Your task to perform on an android device: change notifications settings Image 0: 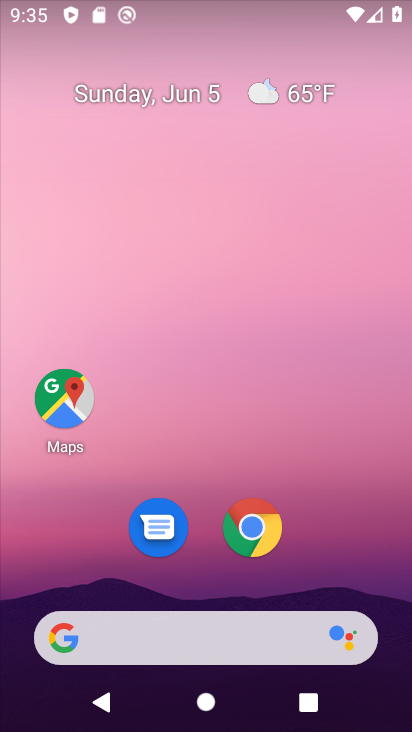
Step 0: drag from (234, 573) to (336, 4)
Your task to perform on an android device: change notifications settings Image 1: 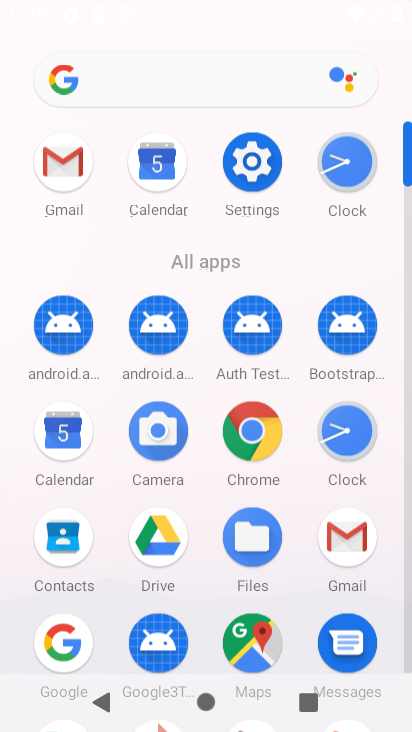
Step 1: click (253, 173)
Your task to perform on an android device: change notifications settings Image 2: 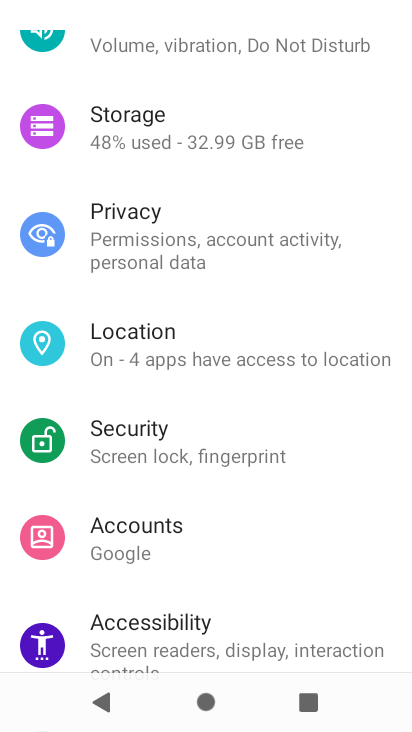
Step 2: drag from (257, 195) to (161, 686)
Your task to perform on an android device: change notifications settings Image 3: 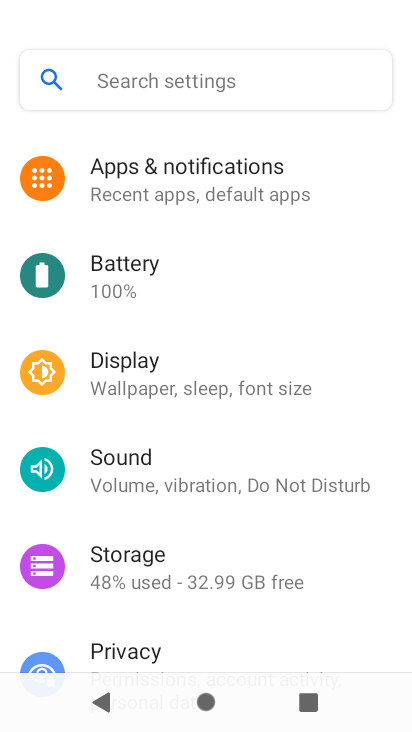
Step 3: click (149, 182)
Your task to perform on an android device: change notifications settings Image 4: 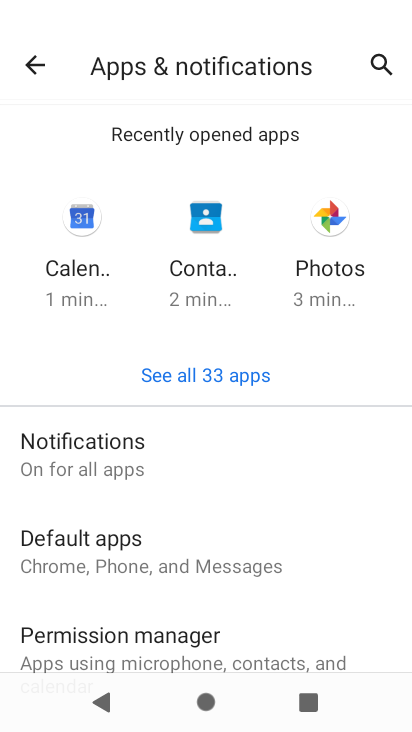
Step 4: click (240, 451)
Your task to perform on an android device: change notifications settings Image 5: 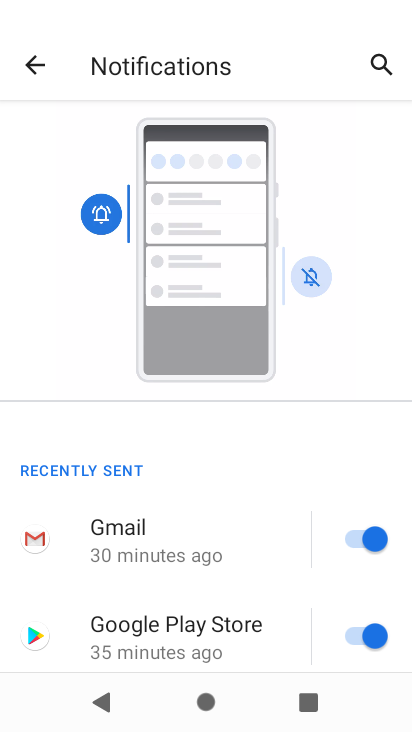
Step 5: task complete